Your task to perform on an android device: Go to location settings Image 0: 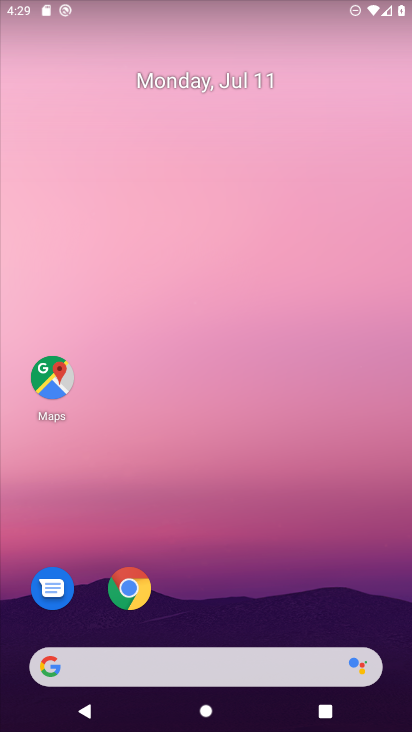
Step 0: press home button
Your task to perform on an android device: Go to location settings Image 1: 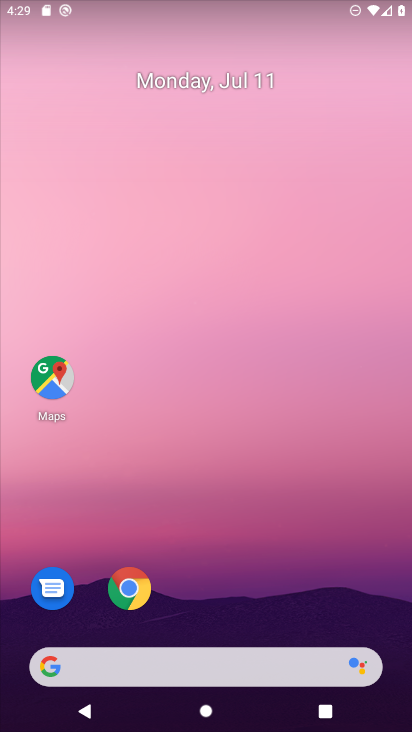
Step 1: drag from (250, 627) to (211, 21)
Your task to perform on an android device: Go to location settings Image 2: 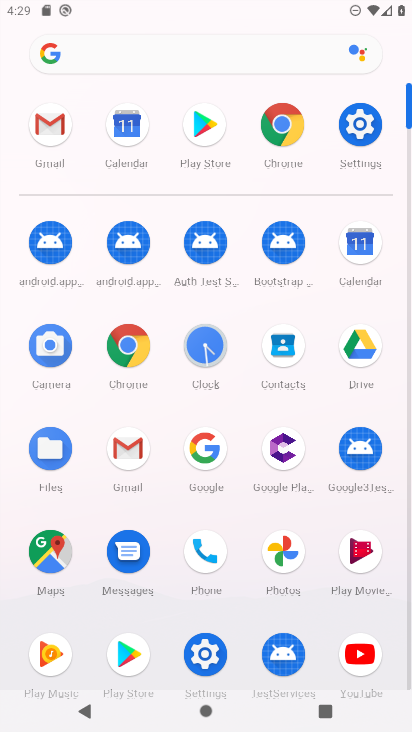
Step 2: click (358, 125)
Your task to perform on an android device: Go to location settings Image 3: 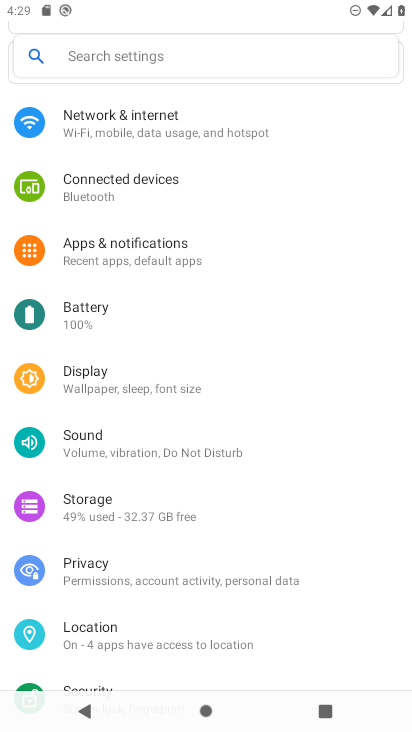
Step 3: click (93, 630)
Your task to perform on an android device: Go to location settings Image 4: 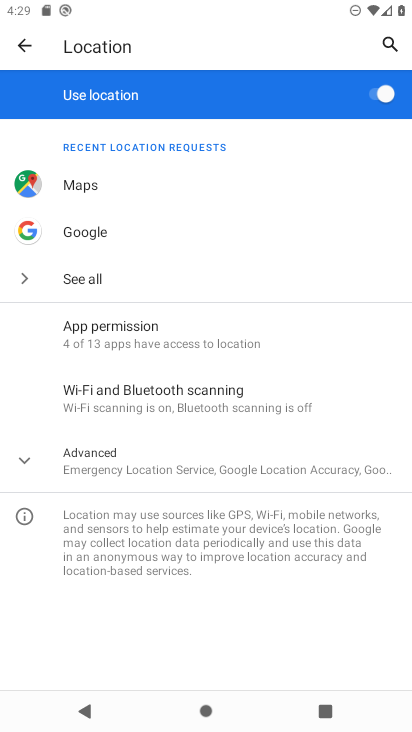
Step 4: task complete